Your task to perform on an android device: Go to internet settings Image 0: 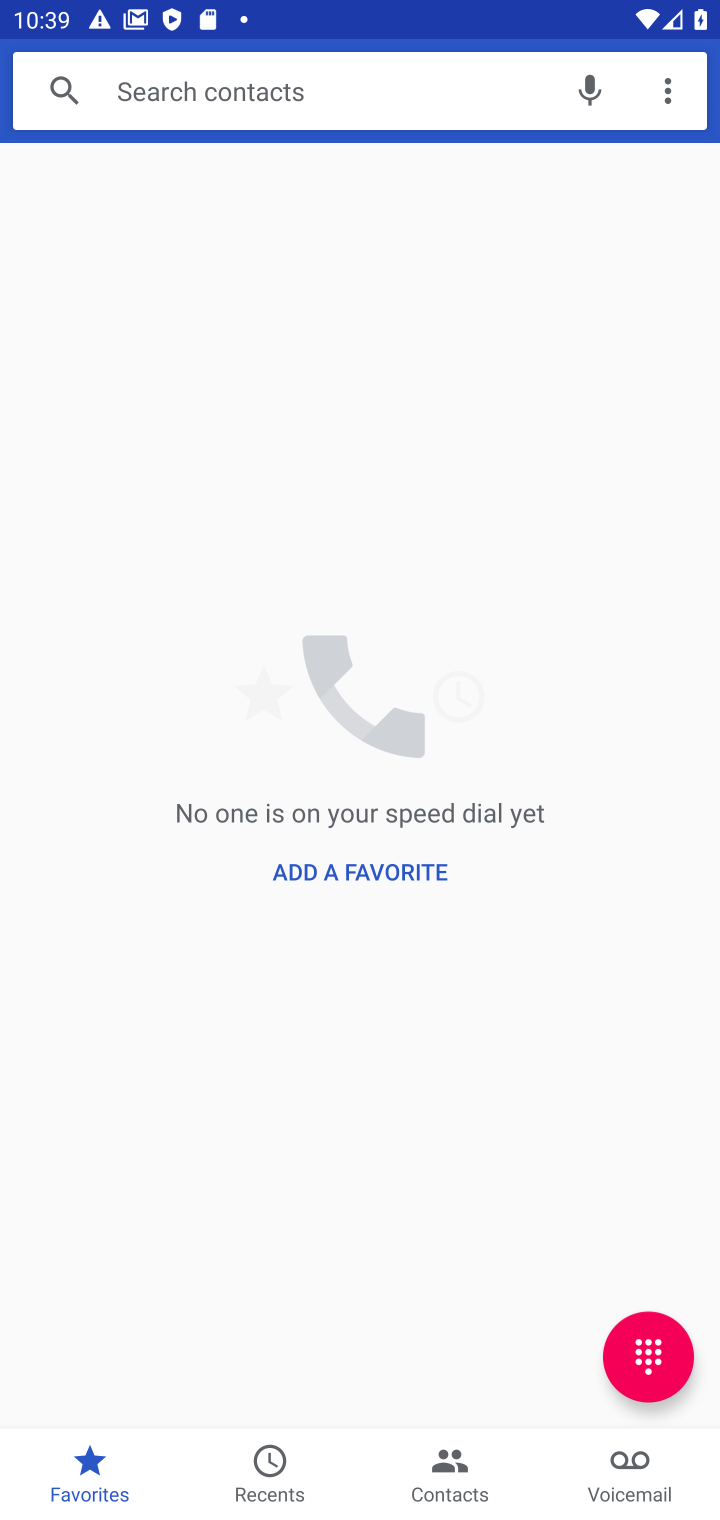
Step 0: press home button
Your task to perform on an android device: Go to internet settings Image 1: 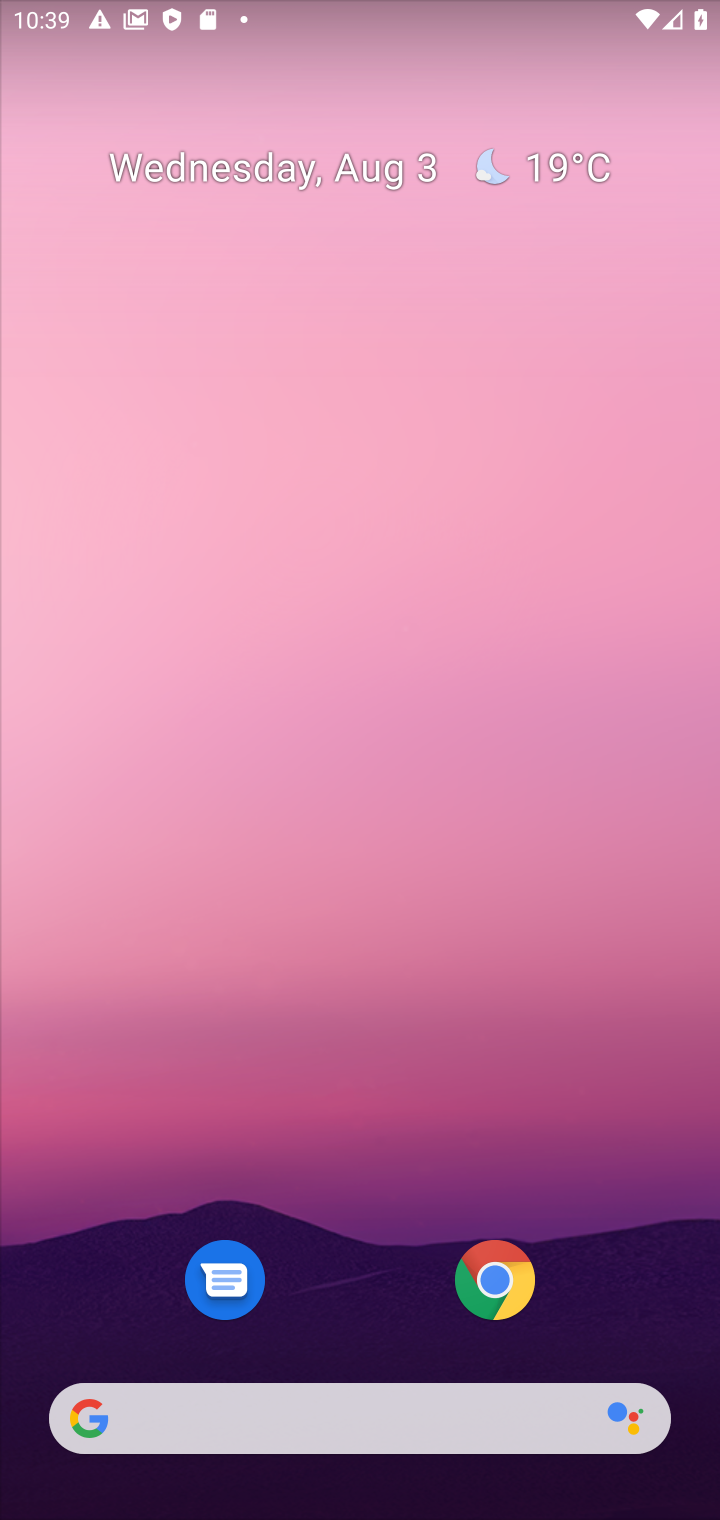
Step 1: drag from (342, 1117) to (343, 303)
Your task to perform on an android device: Go to internet settings Image 2: 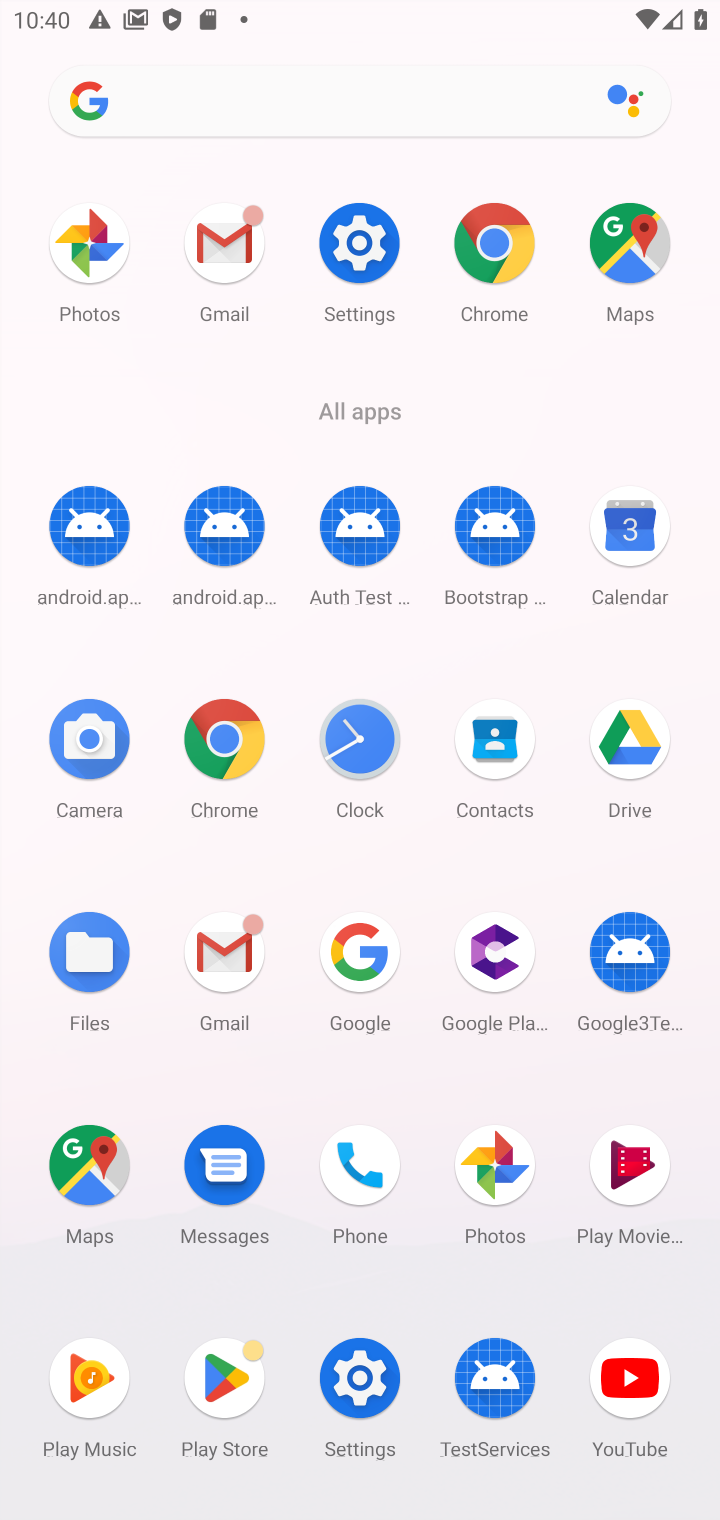
Step 2: click (357, 250)
Your task to perform on an android device: Go to internet settings Image 3: 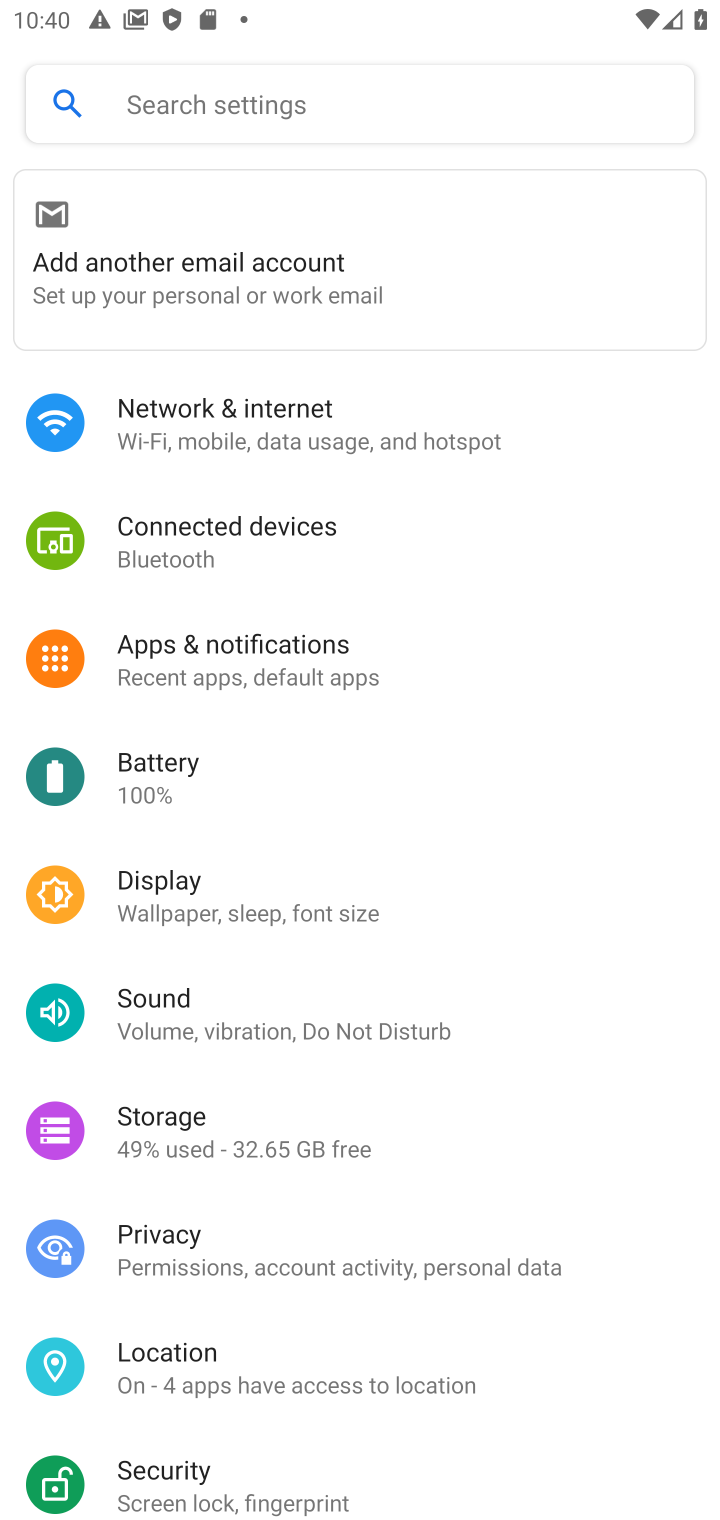
Step 3: click (234, 411)
Your task to perform on an android device: Go to internet settings Image 4: 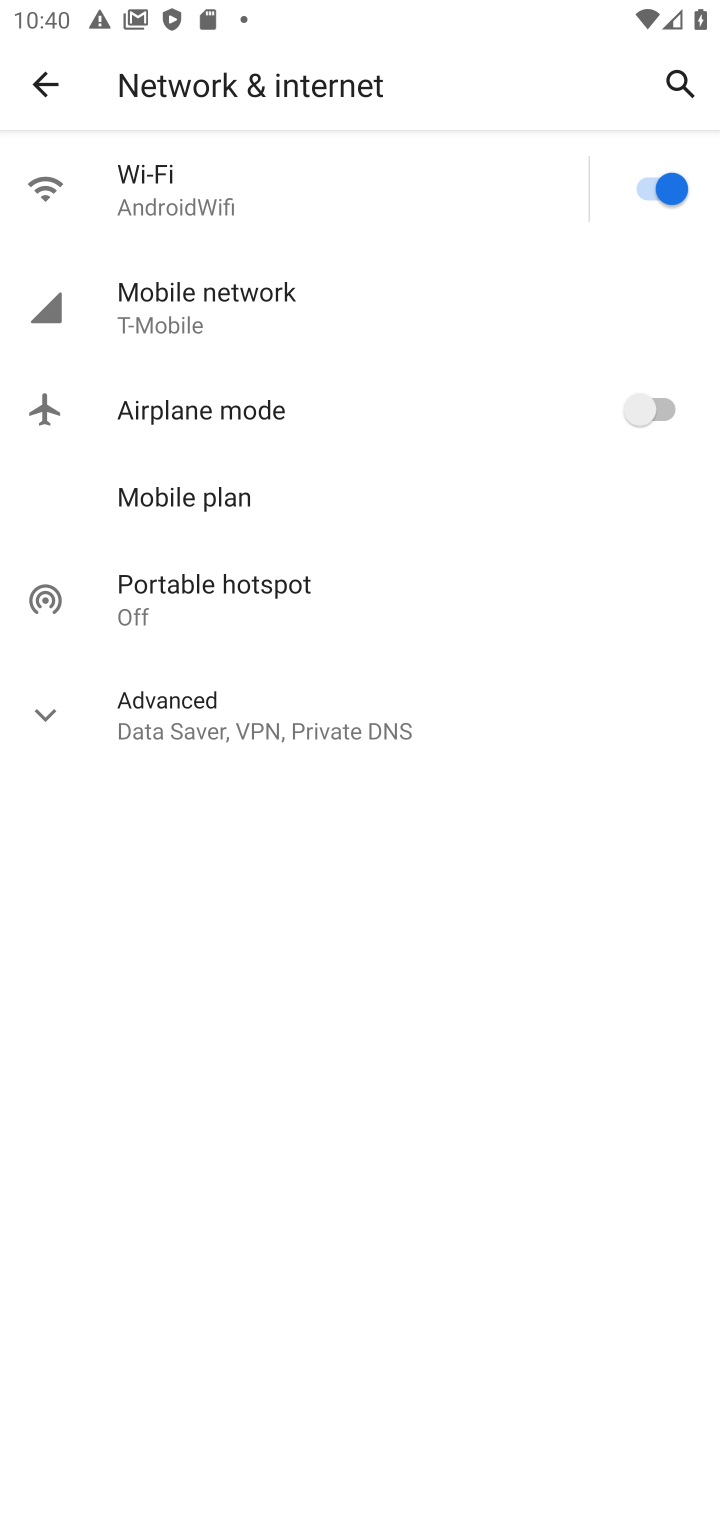
Step 4: task complete